Your task to perform on an android device: change the upload size in google photos Image 0: 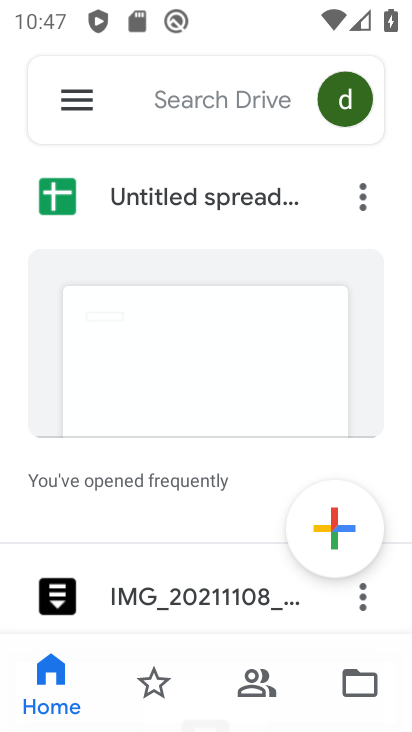
Step 0: press home button
Your task to perform on an android device: change the upload size in google photos Image 1: 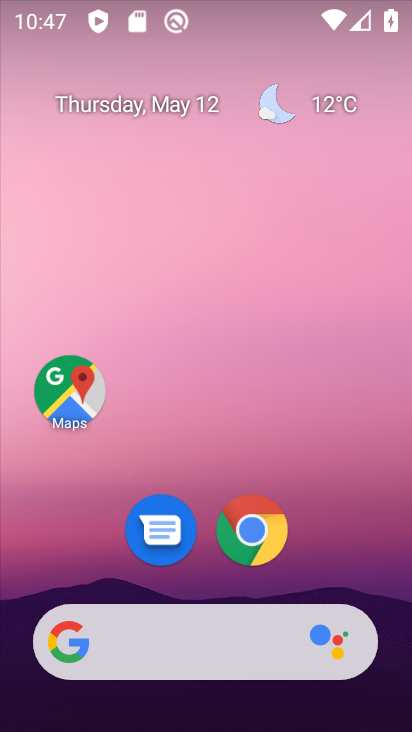
Step 1: drag from (203, 644) to (360, 103)
Your task to perform on an android device: change the upload size in google photos Image 2: 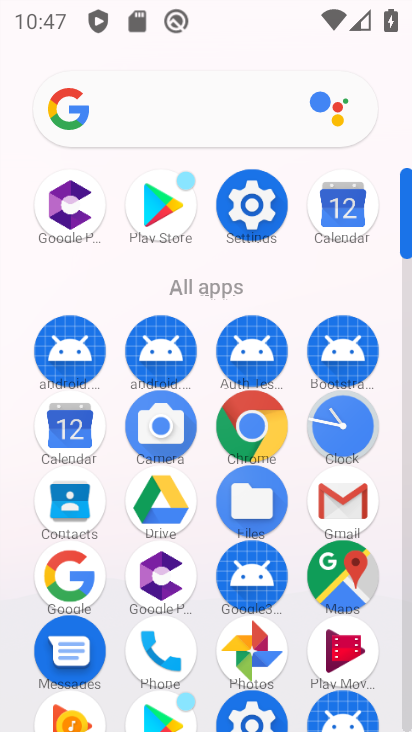
Step 2: click (248, 646)
Your task to perform on an android device: change the upload size in google photos Image 3: 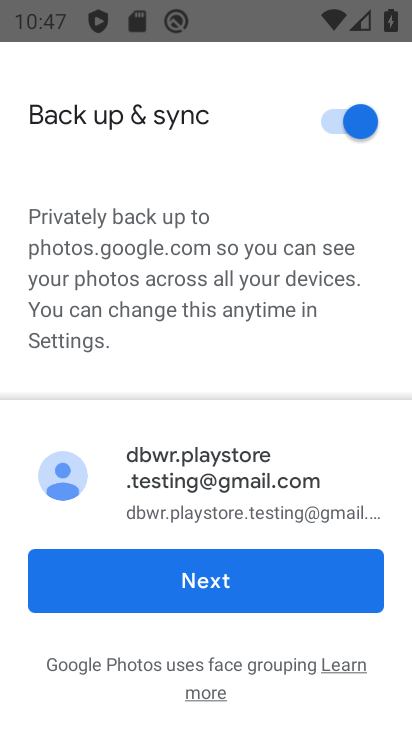
Step 3: click (216, 577)
Your task to perform on an android device: change the upload size in google photos Image 4: 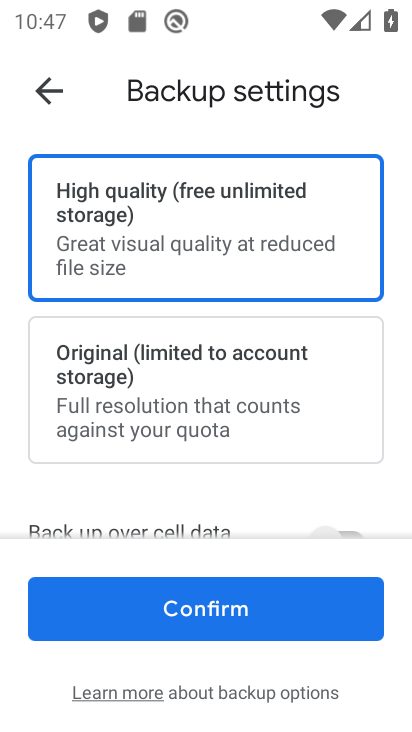
Step 4: click (200, 613)
Your task to perform on an android device: change the upload size in google photos Image 5: 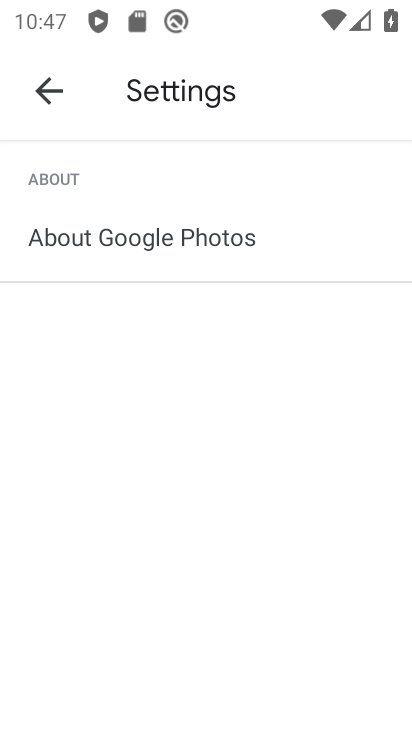
Step 5: click (54, 92)
Your task to perform on an android device: change the upload size in google photos Image 6: 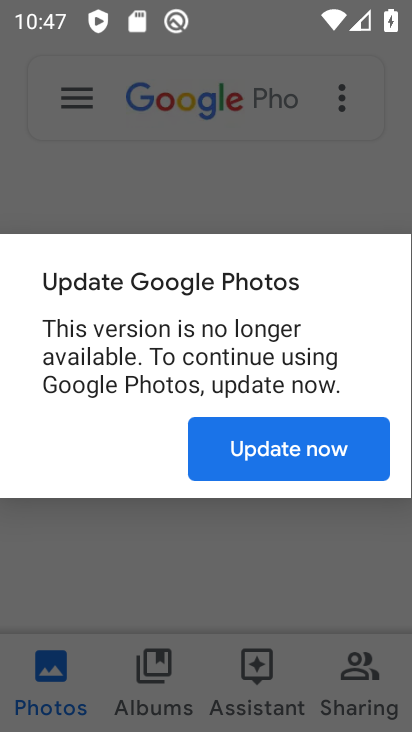
Step 6: click (322, 462)
Your task to perform on an android device: change the upload size in google photos Image 7: 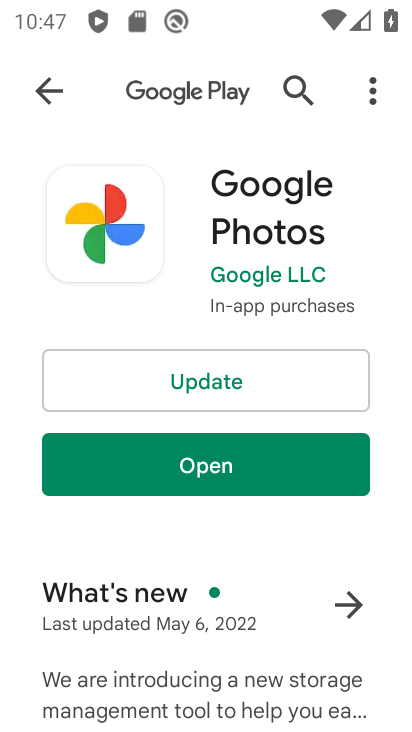
Step 7: click (229, 467)
Your task to perform on an android device: change the upload size in google photos Image 8: 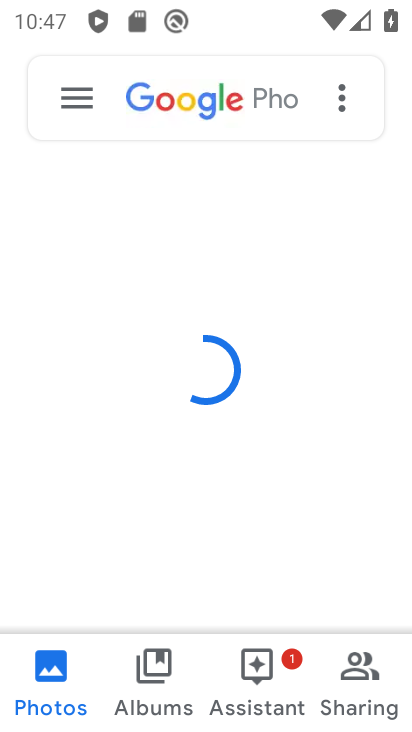
Step 8: click (77, 98)
Your task to perform on an android device: change the upload size in google photos Image 9: 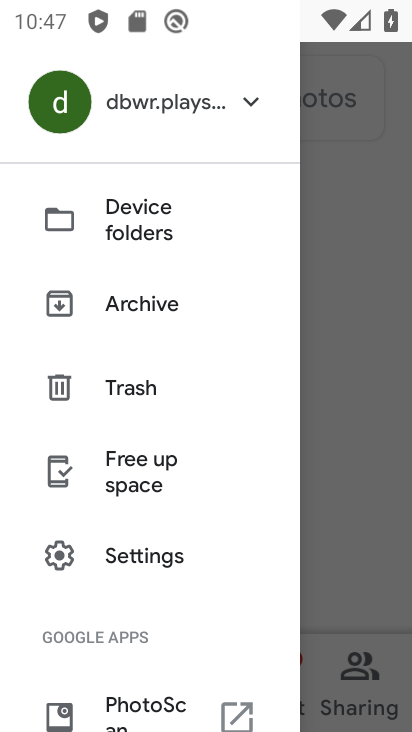
Step 9: click (128, 560)
Your task to perform on an android device: change the upload size in google photos Image 10: 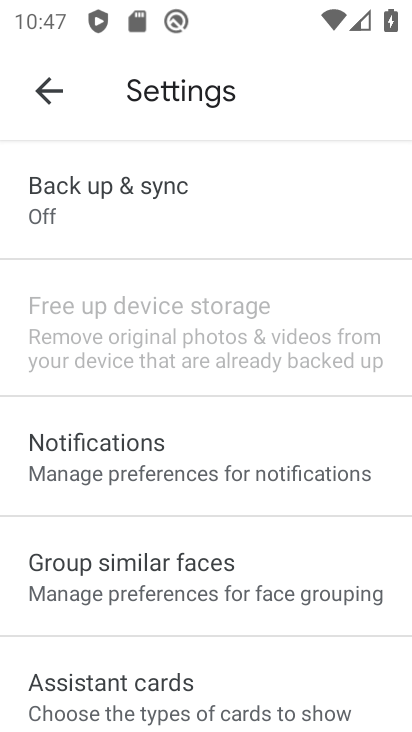
Step 10: click (132, 228)
Your task to perform on an android device: change the upload size in google photos Image 11: 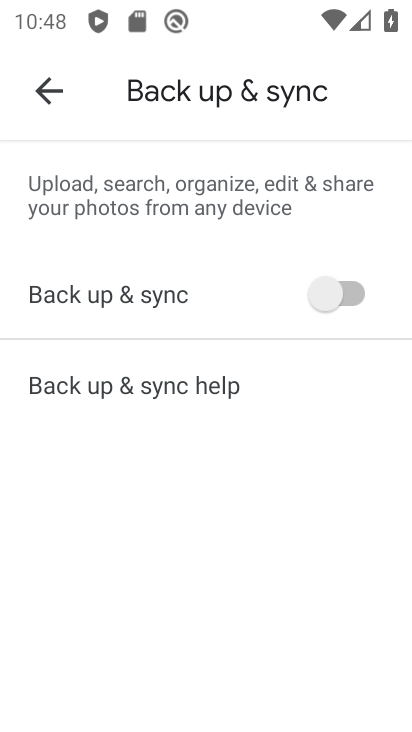
Step 11: click (344, 290)
Your task to perform on an android device: change the upload size in google photos Image 12: 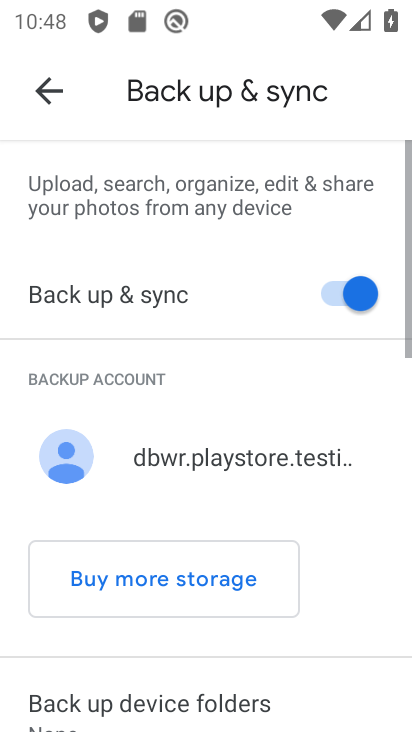
Step 12: drag from (96, 617) to (368, 212)
Your task to perform on an android device: change the upload size in google photos Image 13: 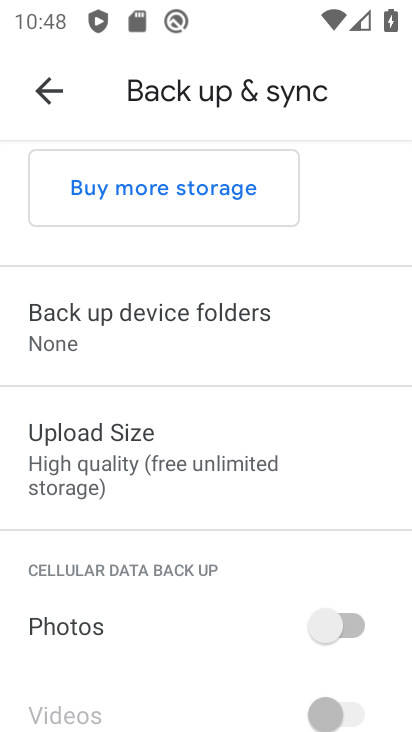
Step 13: click (119, 494)
Your task to perform on an android device: change the upload size in google photos Image 14: 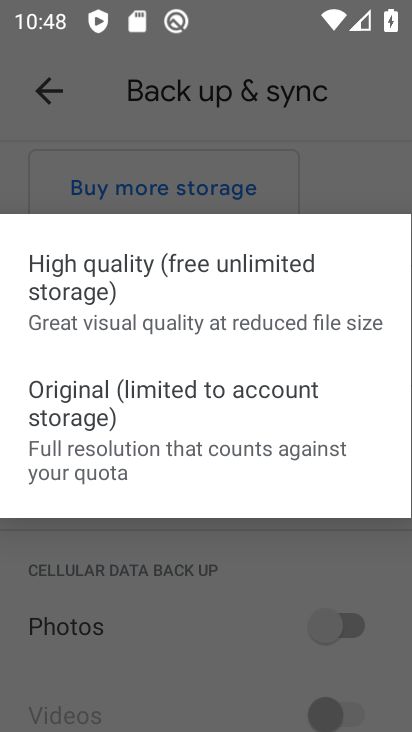
Step 14: click (93, 419)
Your task to perform on an android device: change the upload size in google photos Image 15: 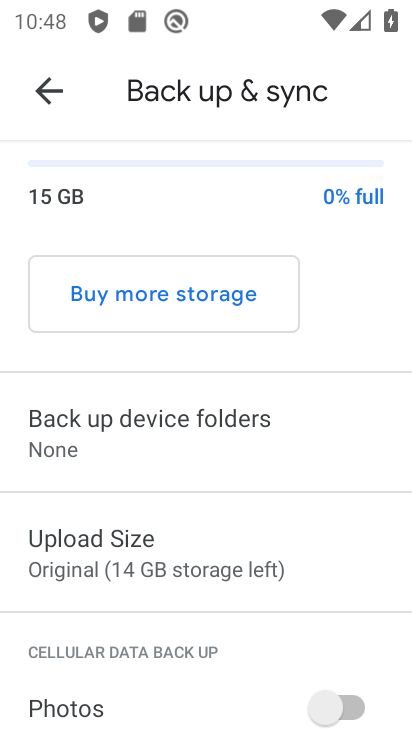
Step 15: task complete